Your task to perform on an android device: Set an alarm for 2pm Image 0: 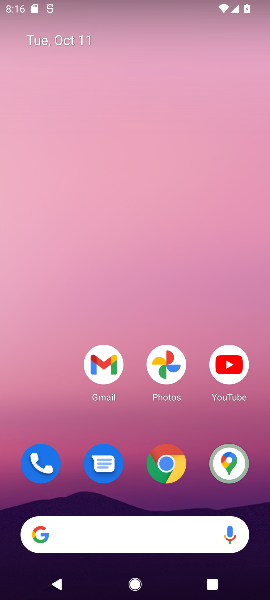
Step 0: drag from (76, 473) to (116, 124)
Your task to perform on an android device: Set an alarm for 2pm Image 1: 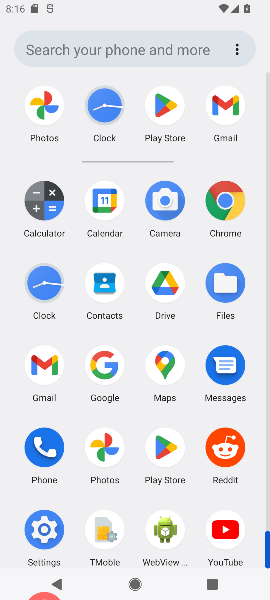
Step 1: drag from (120, 521) to (143, 254)
Your task to perform on an android device: Set an alarm for 2pm Image 2: 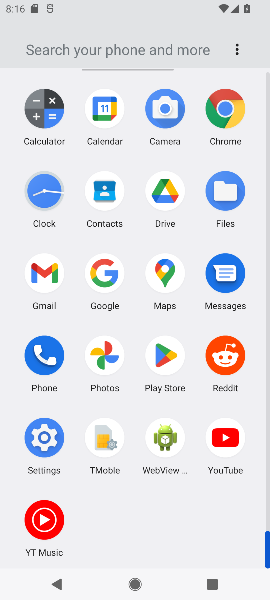
Step 2: click (45, 189)
Your task to perform on an android device: Set an alarm for 2pm Image 3: 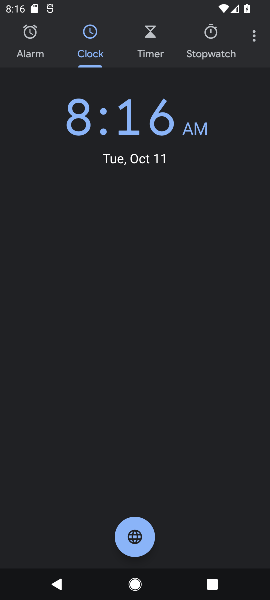
Step 3: click (25, 41)
Your task to perform on an android device: Set an alarm for 2pm Image 4: 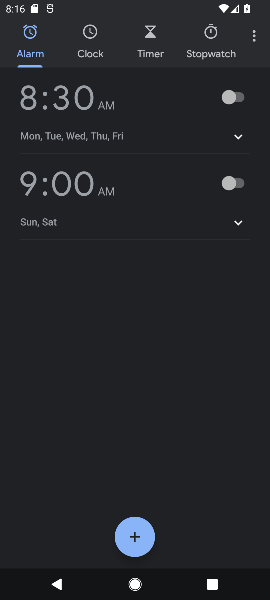
Step 4: click (129, 541)
Your task to perform on an android device: Set an alarm for 2pm Image 5: 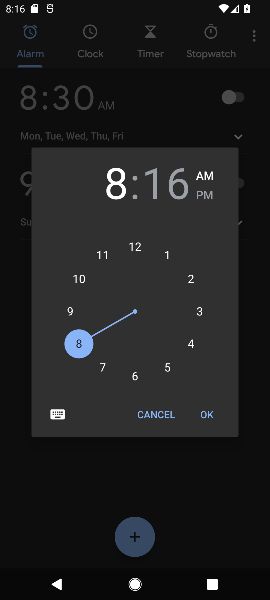
Step 5: click (186, 271)
Your task to perform on an android device: Set an alarm for 2pm Image 6: 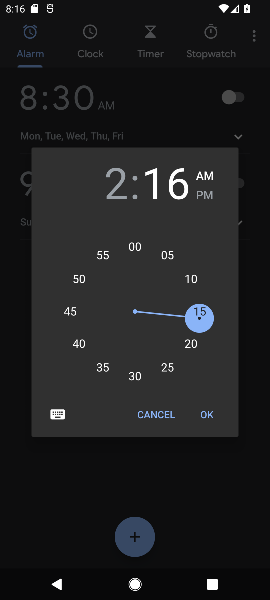
Step 6: click (130, 245)
Your task to perform on an android device: Set an alarm for 2pm Image 7: 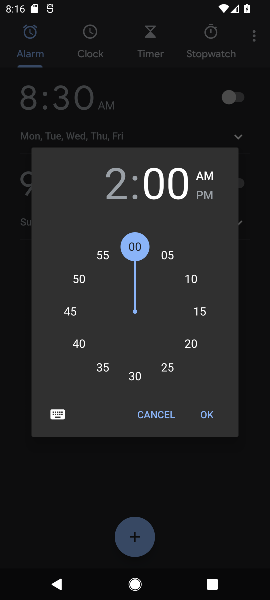
Step 7: click (198, 193)
Your task to perform on an android device: Set an alarm for 2pm Image 8: 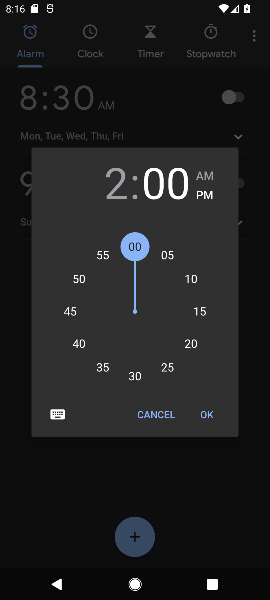
Step 8: click (196, 415)
Your task to perform on an android device: Set an alarm for 2pm Image 9: 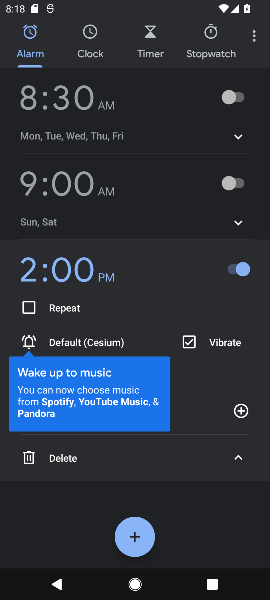
Step 9: task complete